Your task to perform on an android device: check out phone information Image 0: 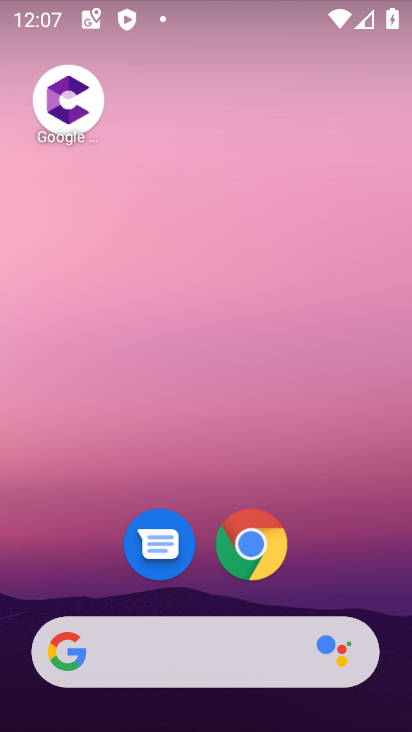
Step 0: drag from (200, 470) to (140, 136)
Your task to perform on an android device: check out phone information Image 1: 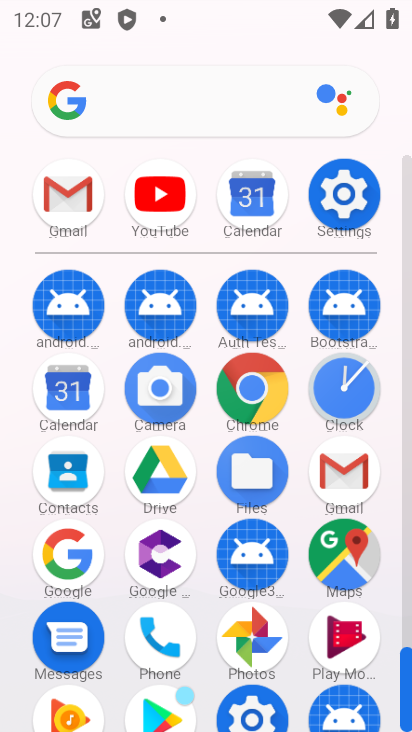
Step 1: click (337, 193)
Your task to perform on an android device: check out phone information Image 2: 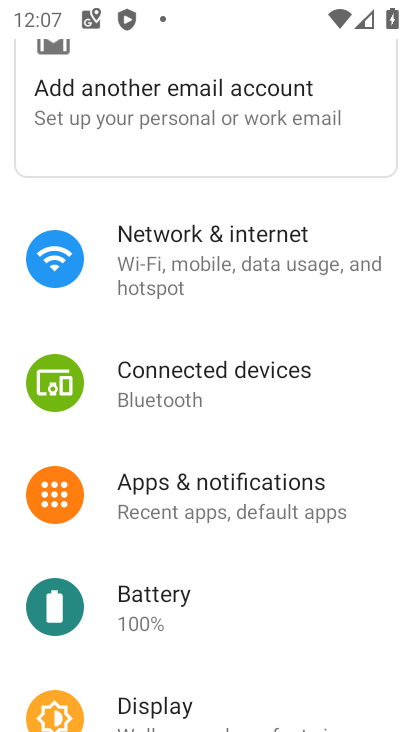
Step 2: drag from (253, 561) to (197, 280)
Your task to perform on an android device: check out phone information Image 3: 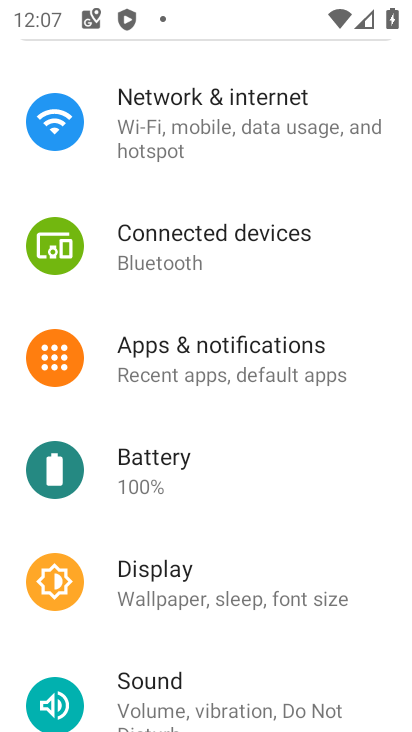
Step 3: drag from (222, 524) to (181, 181)
Your task to perform on an android device: check out phone information Image 4: 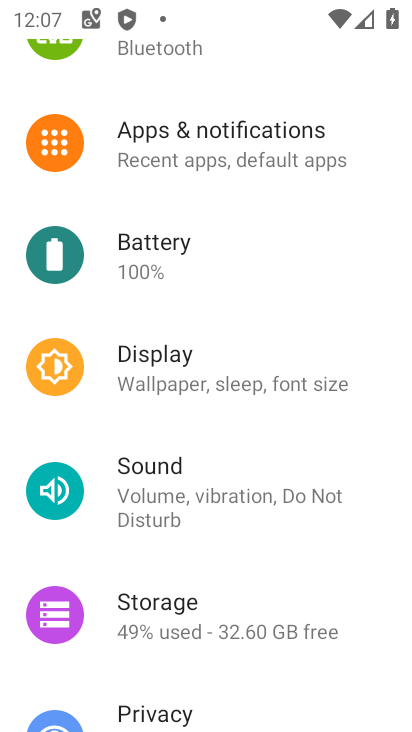
Step 4: drag from (240, 666) to (240, 217)
Your task to perform on an android device: check out phone information Image 5: 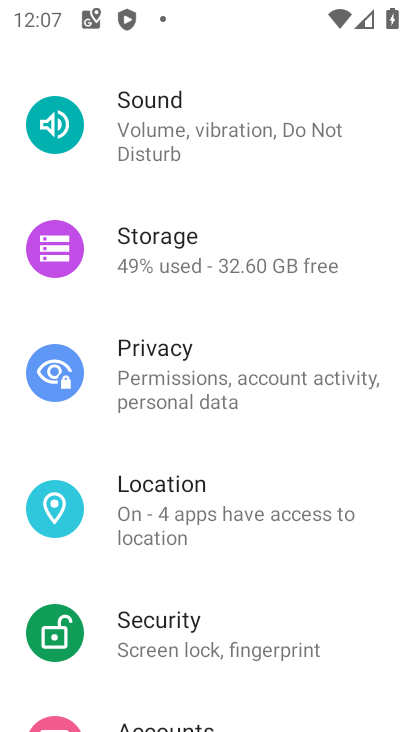
Step 5: drag from (249, 561) to (212, 154)
Your task to perform on an android device: check out phone information Image 6: 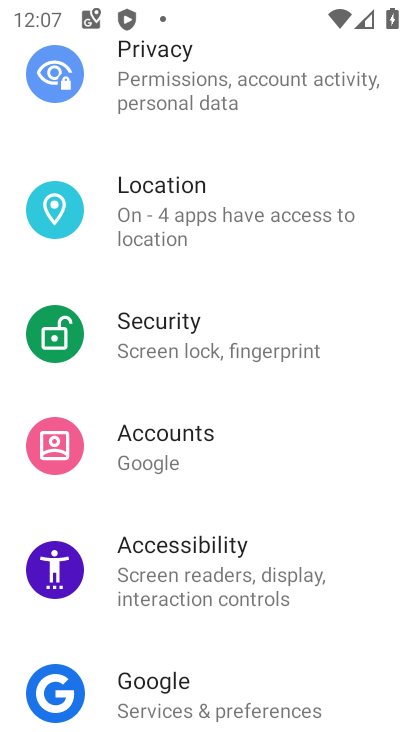
Step 6: drag from (252, 519) to (213, 70)
Your task to perform on an android device: check out phone information Image 7: 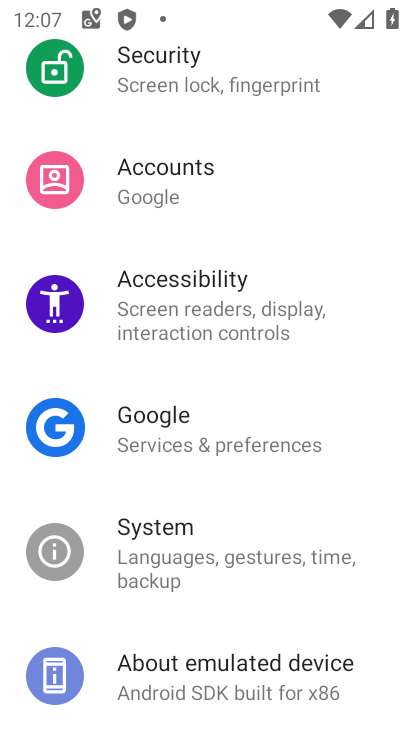
Step 7: drag from (236, 634) to (236, 350)
Your task to perform on an android device: check out phone information Image 8: 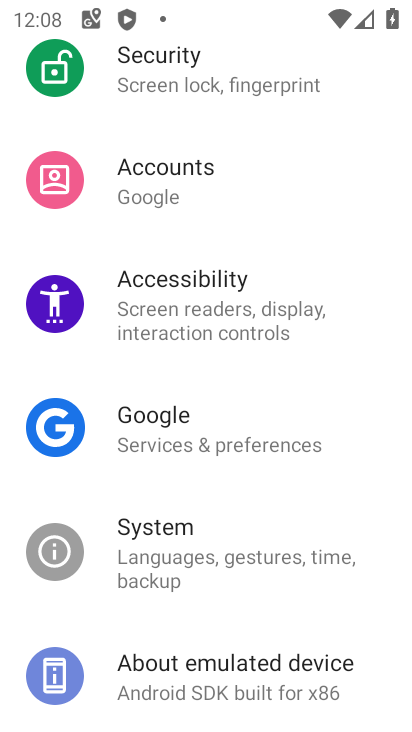
Step 8: click (207, 668)
Your task to perform on an android device: check out phone information Image 9: 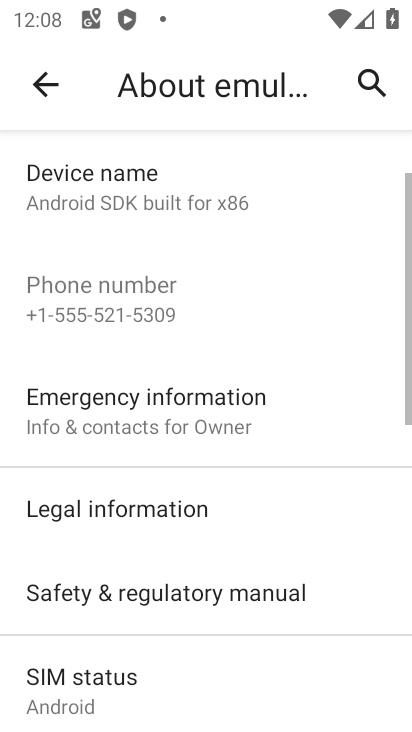
Step 9: task complete